Your task to perform on an android device: Open maps Image 0: 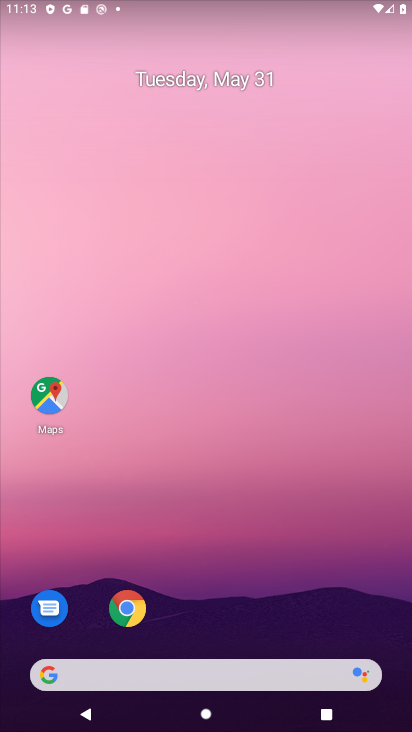
Step 0: click (59, 408)
Your task to perform on an android device: Open maps Image 1: 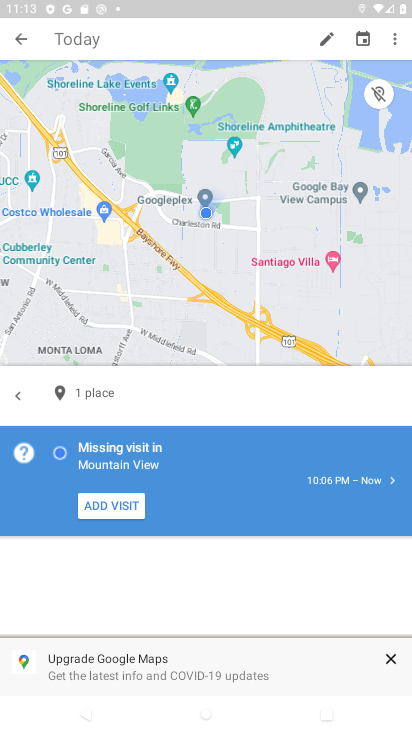
Step 1: task complete